Your task to perform on an android device: toggle show notifications on the lock screen Image 0: 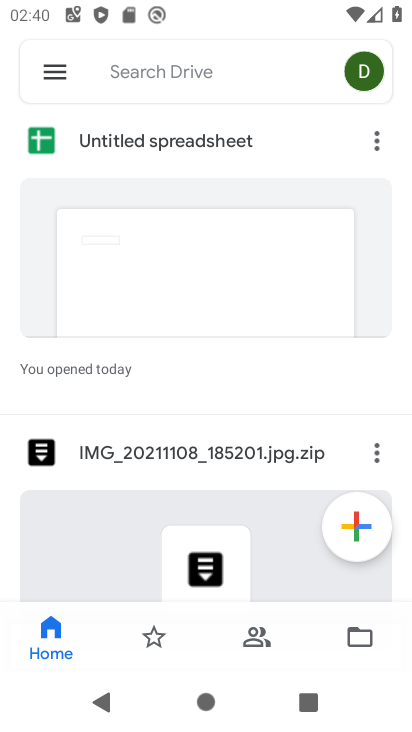
Step 0: press back button
Your task to perform on an android device: toggle show notifications on the lock screen Image 1: 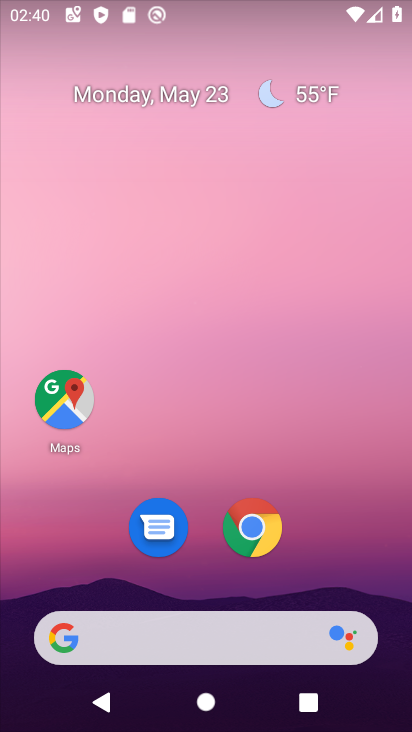
Step 1: drag from (343, 563) to (214, 7)
Your task to perform on an android device: toggle show notifications on the lock screen Image 2: 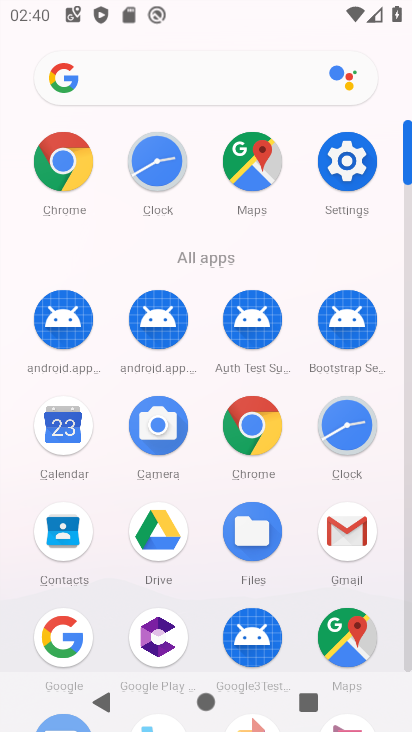
Step 2: drag from (10, 463) to (28, 159)
Your task to perform on an android device: toggle show notifications on the lock screen Image 3: 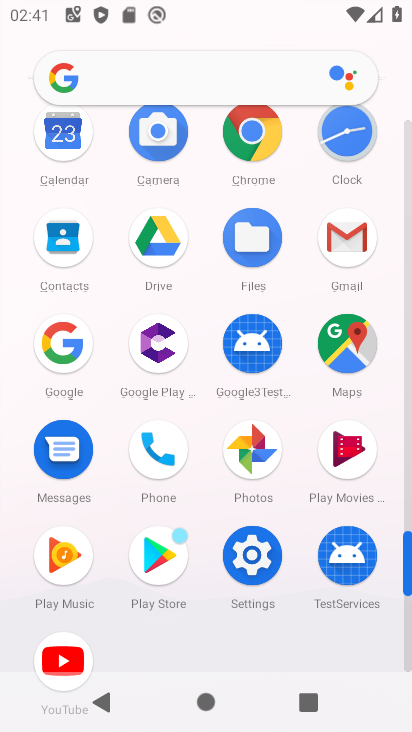
Step 3: click (252, 555)
Your task to perform on an android device: toggle show notifications on the lock screen Image 4: 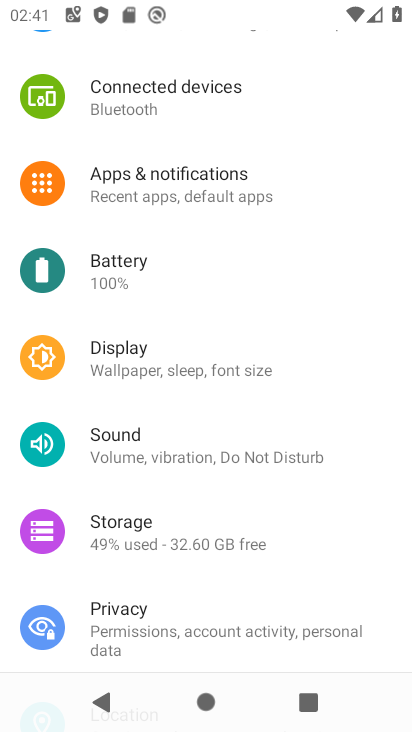
Step 4: drag from (235, 150) to (271, 598)
Your task to perform on an android device: toggle show notifications on the lock screen Image 5: 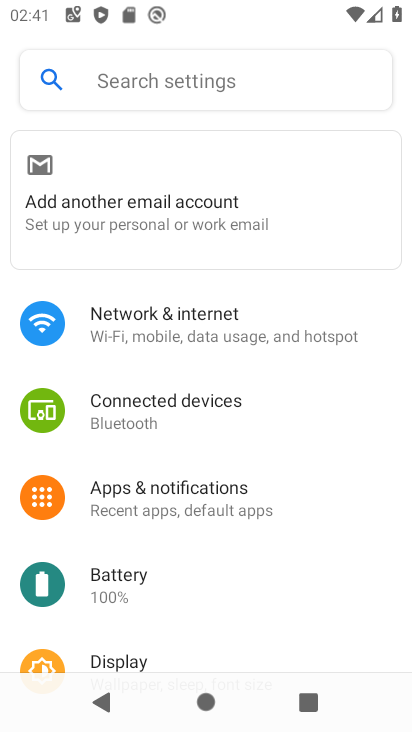
Step 5: drag from (266, 267) to (264, 549)
Your task to perform on an android device: toggle show notifications on the lock screen Image 6: 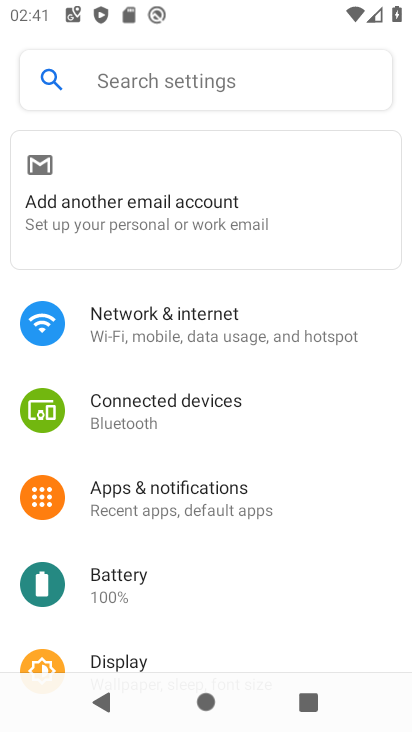
Step 6: drag from (286, 589) to (285, 242)
Your task to perform on an android device: toggle show notifications on the lock screen Image 7: 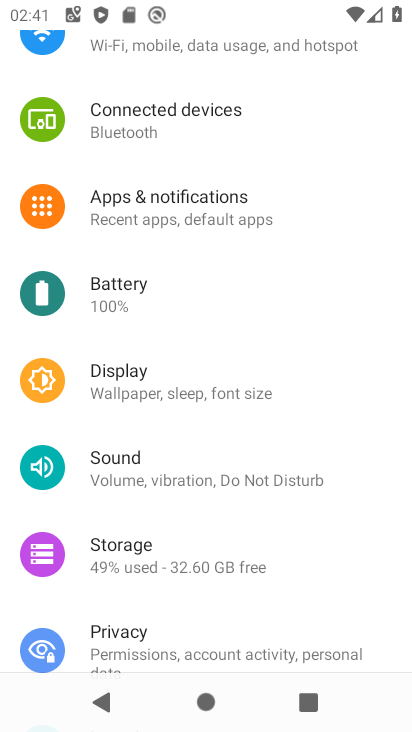
Step 7: click (180, 192)
Your task to perform on an android device: toggle show notifications on the lock screen Image 8: 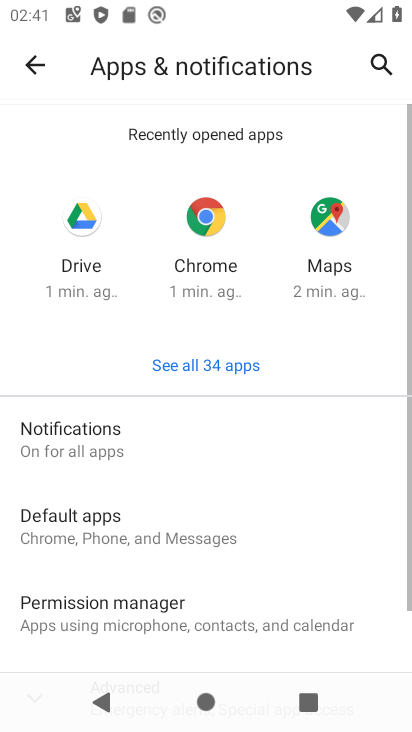
Step 8: drag from (225, 520) to (222, 124)
Your task to perform on an android device: toggle show notifications on the lock screen Image 9: 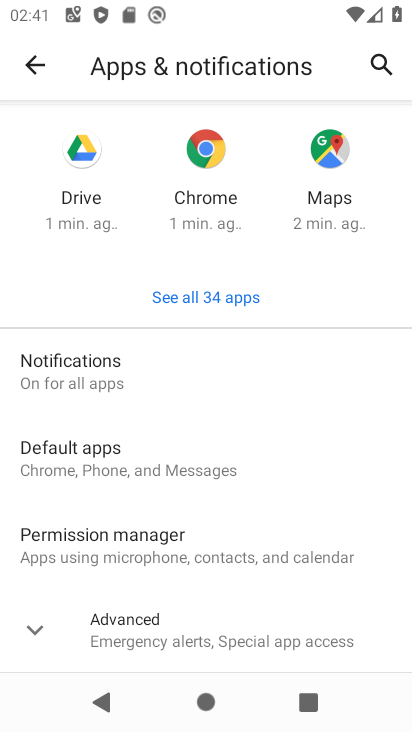
Step 9: click (38, 609)
Your task to perform on an android device: toggle show notifications on the lock screen Image 10: 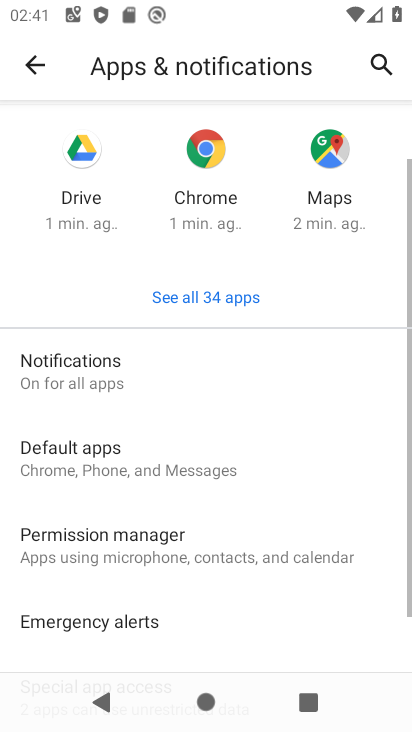
Step 10: drag from (240, 572) to (258, 206)
Your task to perform on an android device: toggle show notifications on the lock screen Image 11: 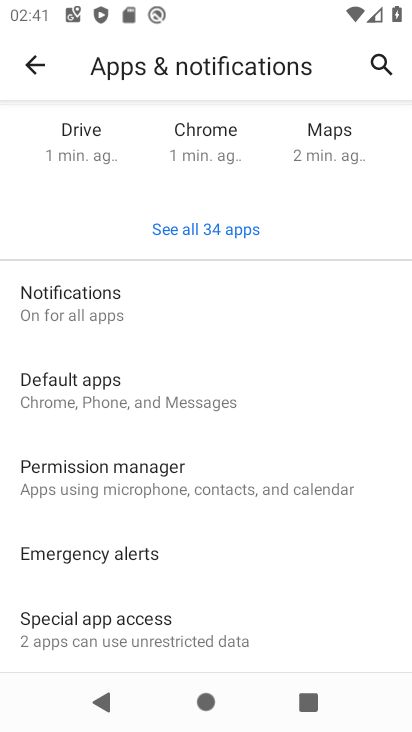
Step 11: click (119, 305)
Your task to perform on an android device: toggle show notifications on the lock screen Image 12: 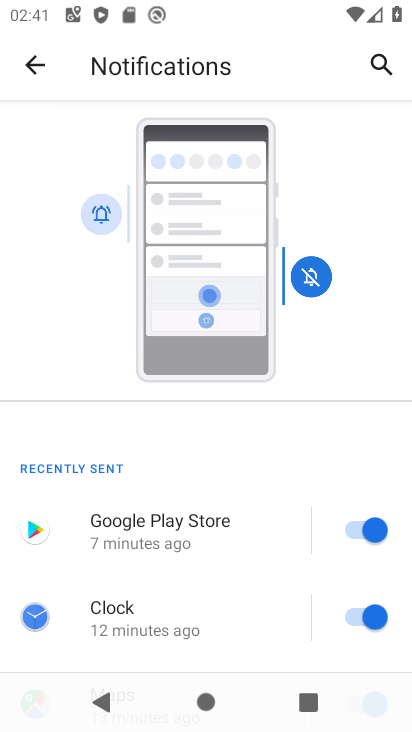
Step 12: drag from (118, 619) to (131, 156)
Your task to perform on an android device: toggle show notifications on the lock screen Image 13: 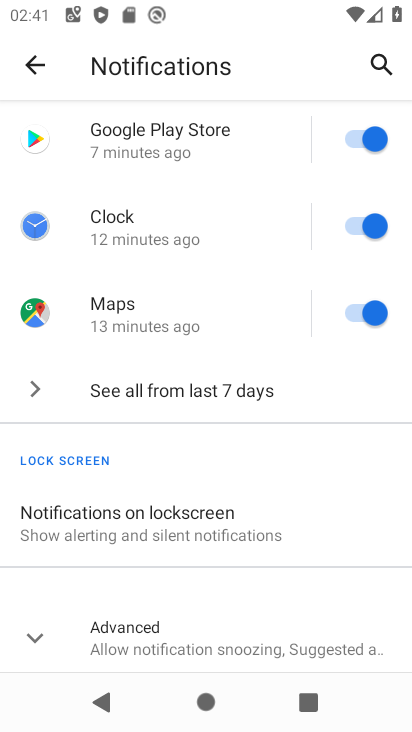
Step 13: click (45, 634)
Your task to perform on an android device: toggle show notifications on the lock screen Image 14: 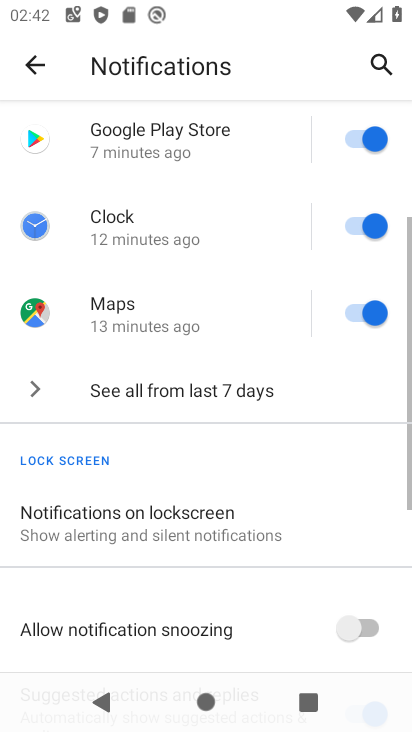
Step 14: drag from (127, 527) to (152, 135)
Your task to perform on an android device: toggle show notifications on the lock screen Image 15: 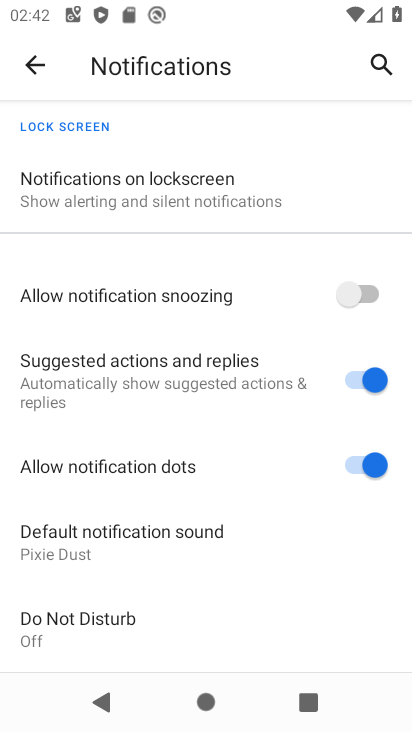
Step 15: click (121, 181)
Your task to perform on an android device: toggle show notifications on the lock screen Image 16: 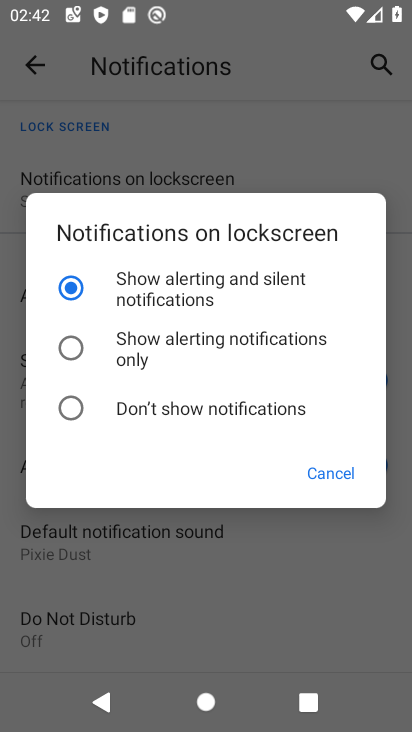
Step 16: click (144, 262)
Your task to perform on an android device: toggle show notifications on the lock screen Image 17: 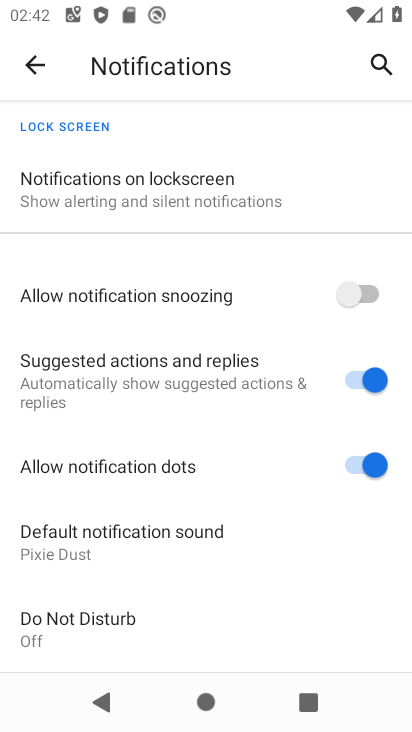
Step 17: click (137, 201)
Your task to perform on an android device: toggle show notifications on the lock screen Image 18: 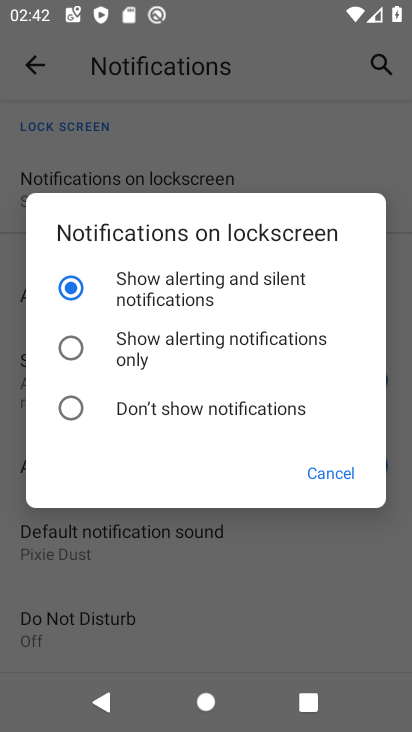
Step 18: click (149, 329)
Your task to perform on an android device: toggle show notifications on the lock screen Image 19: 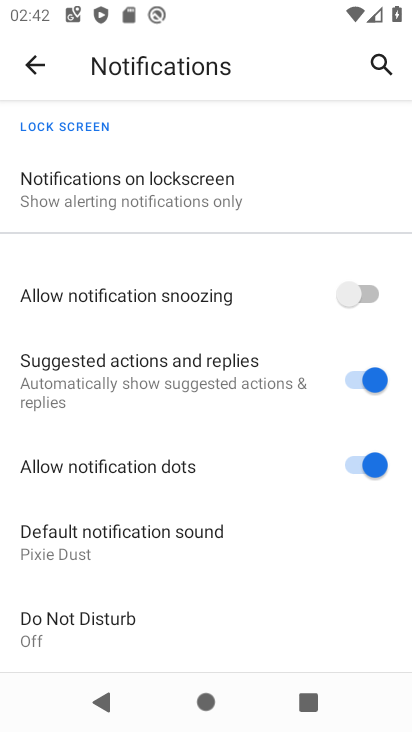
Step 19: task complete